Your task to perform on an android device: Open location settings Image 0: 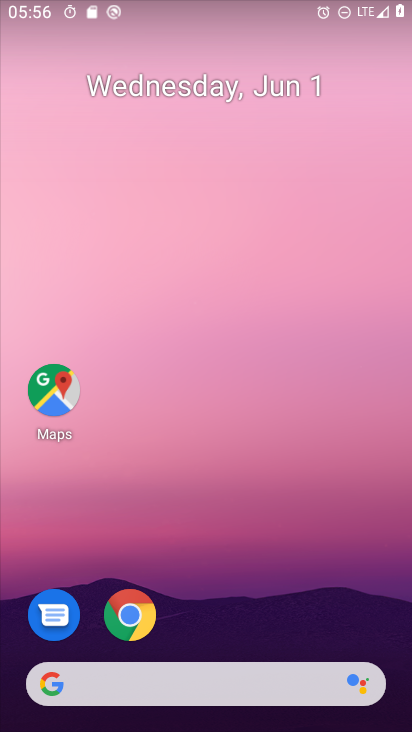
Step 0: drag from (182, 688) to (251, 62)
Your task to perform on an android device: Open location settings Image 1: 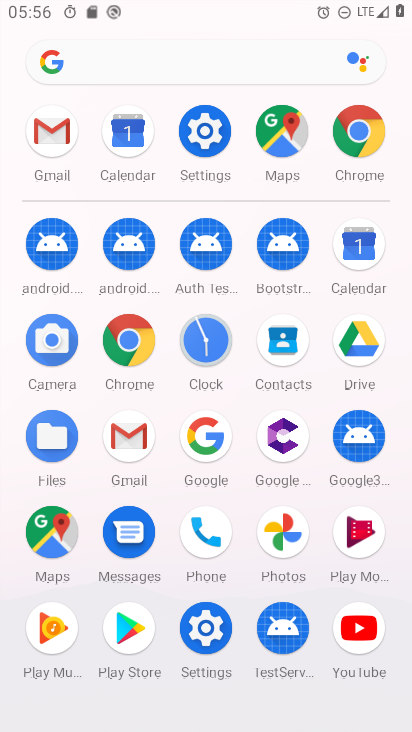
Step 1: click (214, 127)
Your task to perform on an android device: Open location settings Image 2: 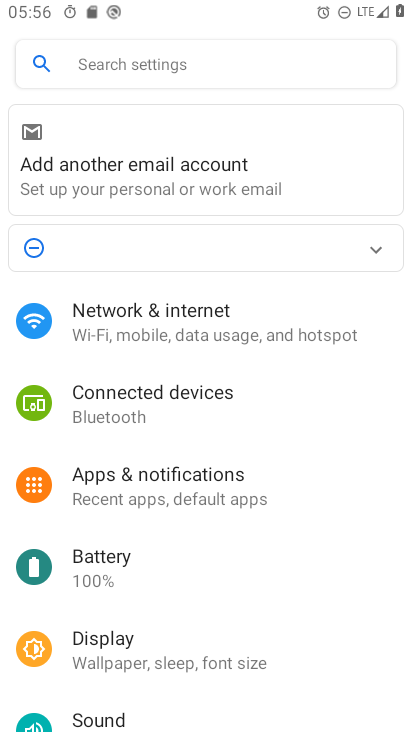
Step 2: drag from (127, 708) to (153, 299)
Your task to perform on an android device: Open location settings Image 3: 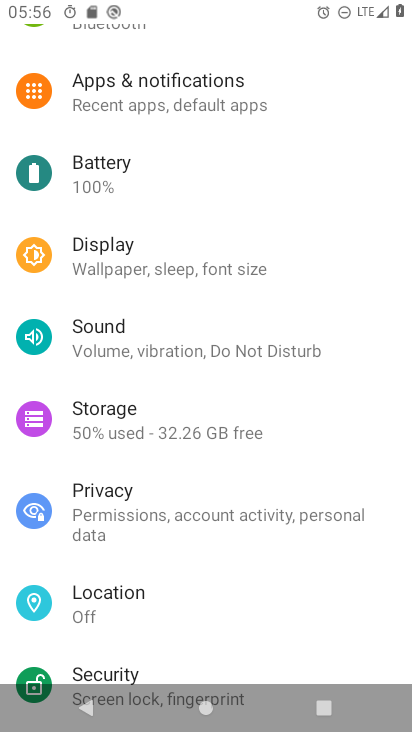
Step 3: click (152, 605)
Your task to perform on an android device: Open location settings Image 4: 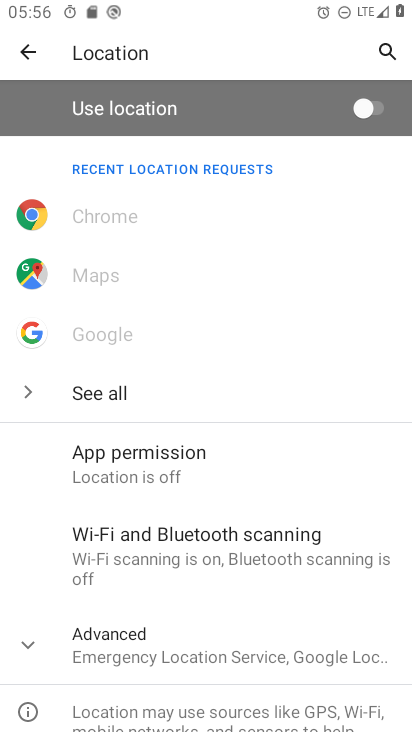
Step 4: task complete